Your task to perform on an android device: Open calendar and show me the first week of next month Image 0: 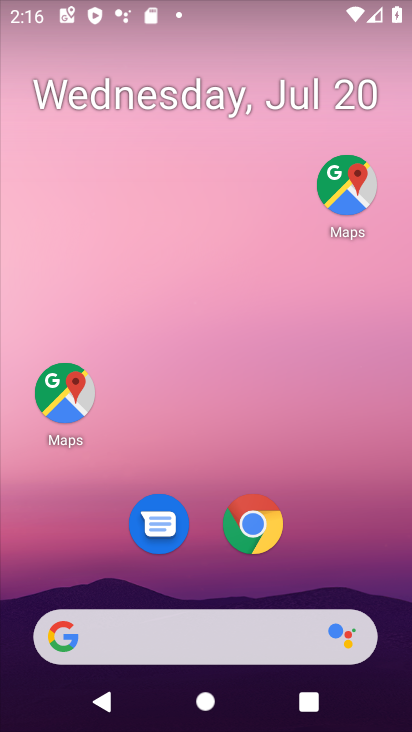
Step 0: drag from (212, 451) to (255, 10)
Your task to perform on an android device: Open calendar and show me the first week of next month Image 1: 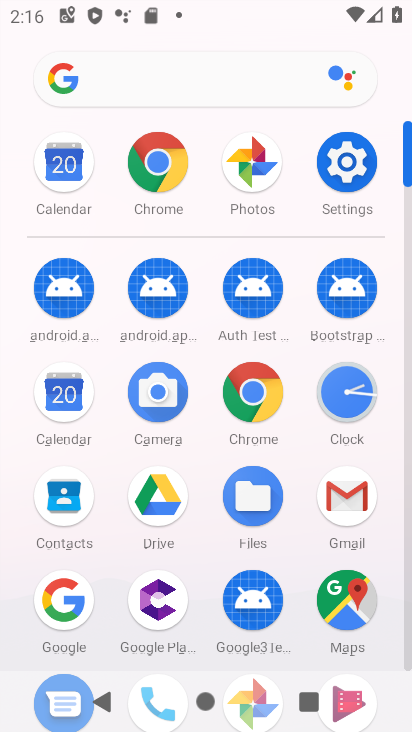
Step 1: click (67, 173)
Your task to perform on an android device: Open calendar and show me the first week of next month Image 2: 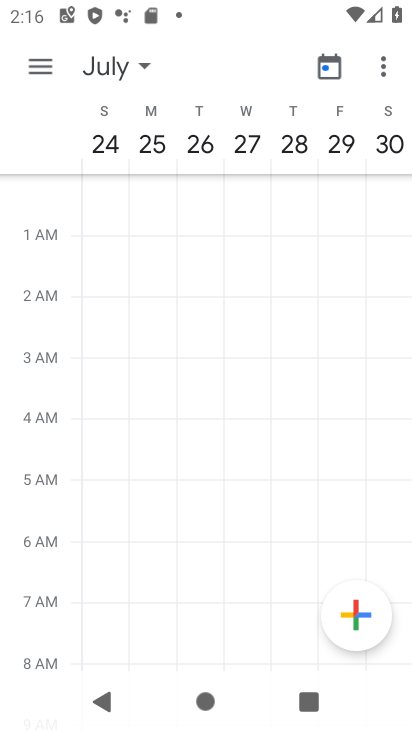
Step 2: task complete